Your task to perform on an android device: Open the calendar and show me this week's events? Image 0: 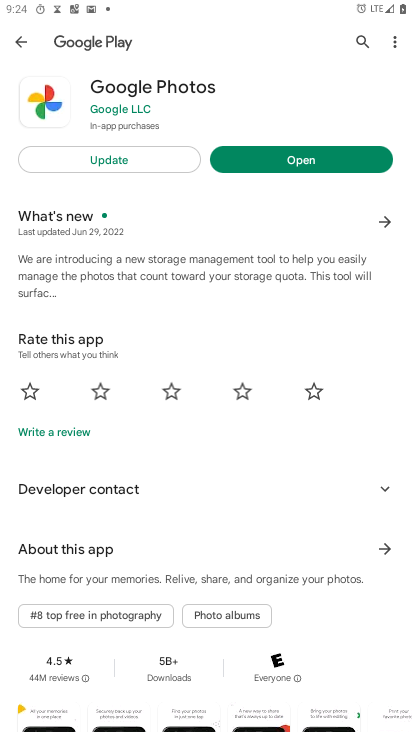
Step 0: press home button
Your task to perform on an android device: Open the calendar and show me this week's events? Image 1: 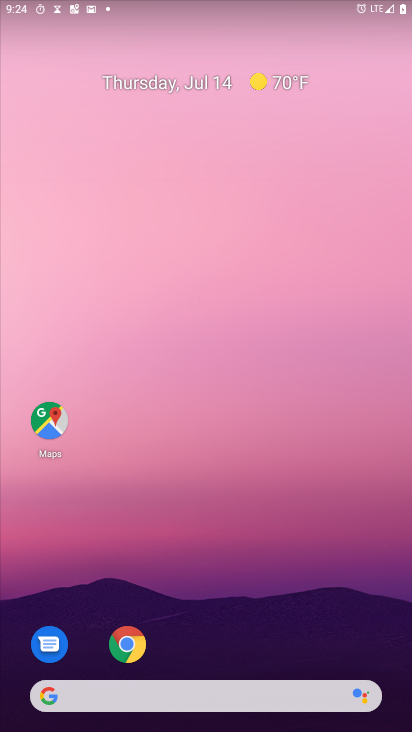
Step 1: drag from (144, 689) to (294, 42)
Your task to perform on an android device: Open the calendar and show me this week's events? Image 2: 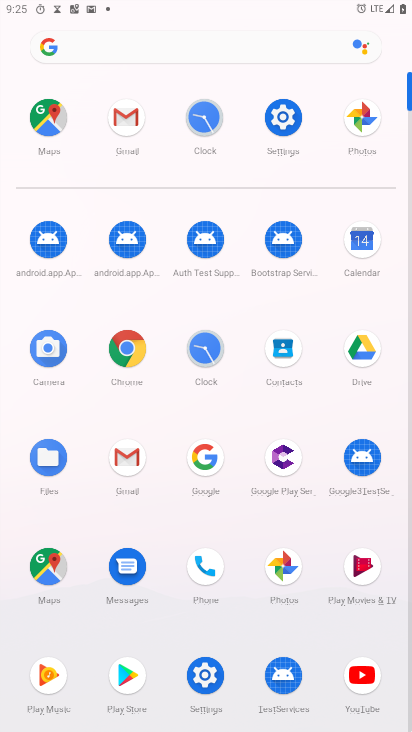
Step 2: click (367, 245)
Your task to perform on an android device: Open the calendar and show me this week's events? Image 3: 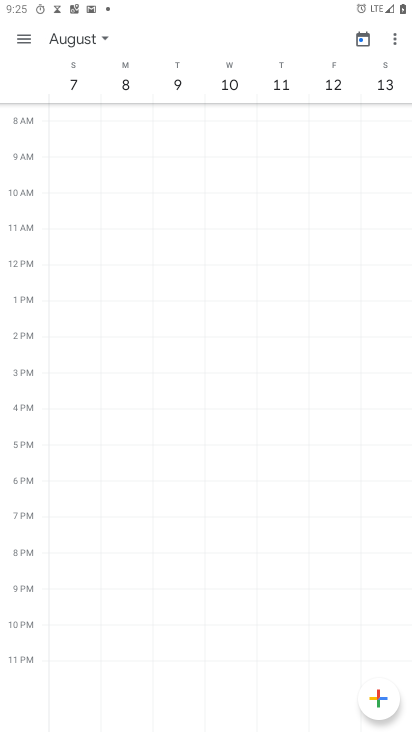
Step 3: click (77, 39)
Your task to perform on an android device: Open the calendar and show me this week's events? Image 4: 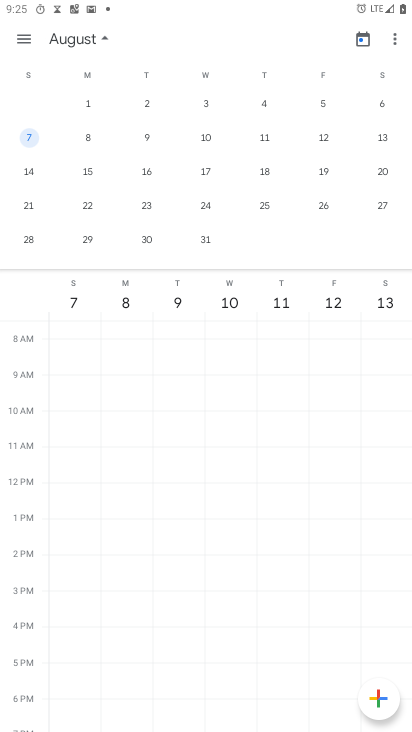
Step 4: drag from (62, 191) to (400, 232)
Your task to perform on an android device: Open the calendar and show me this week's events? Image 5: 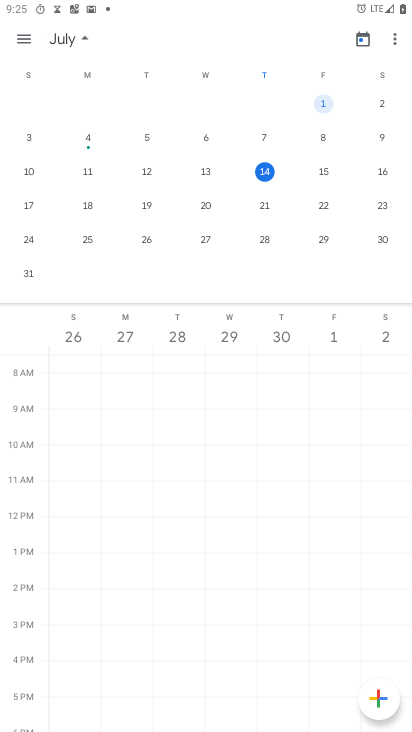
Step 5: click (260, 170)
Your task to perform on an android device: Open the calendar and show me this week's events? Image 6: 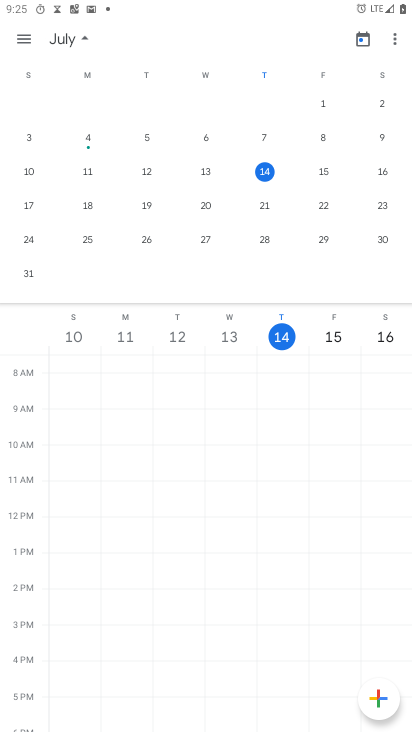
Step 6: click (25, 41)
Your task to perform on an android device: Open the calendar and show me this week's events? Image 7: 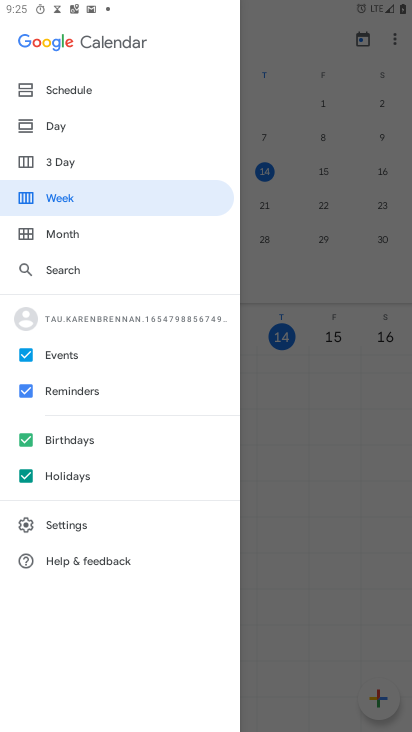
Step 7: click (67, 92)
Your task to perform on an android device: Open the calendar and show me this week's events? Image 8: 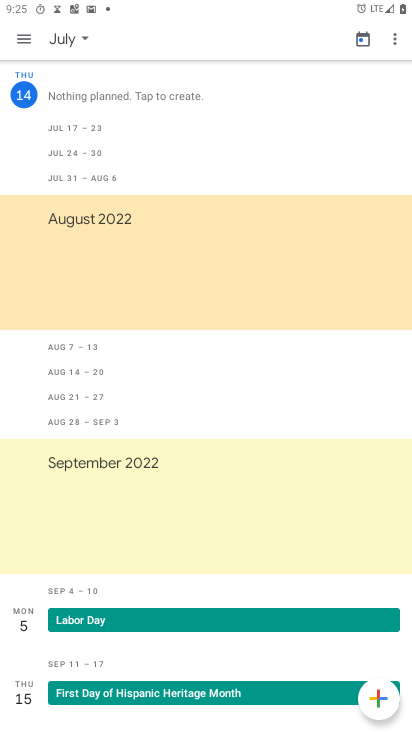
Step 8: task complete